Your task to perform on an android device: Search for Italian restaurants on Maps Image 0: 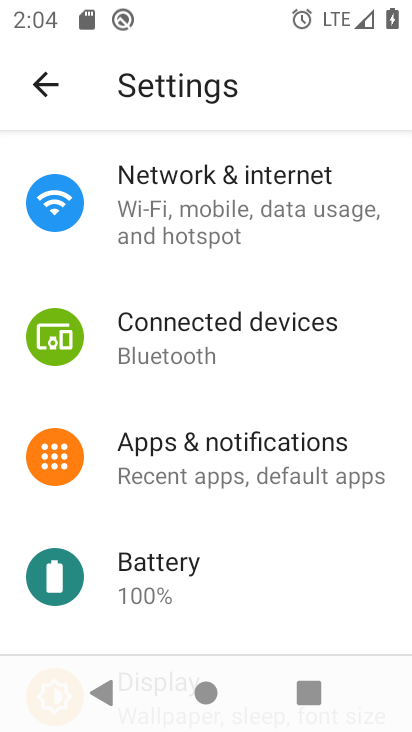
Step 0: press home button
Your task to perform on an android device: Search for Italian restaurants on Maps Image 1: 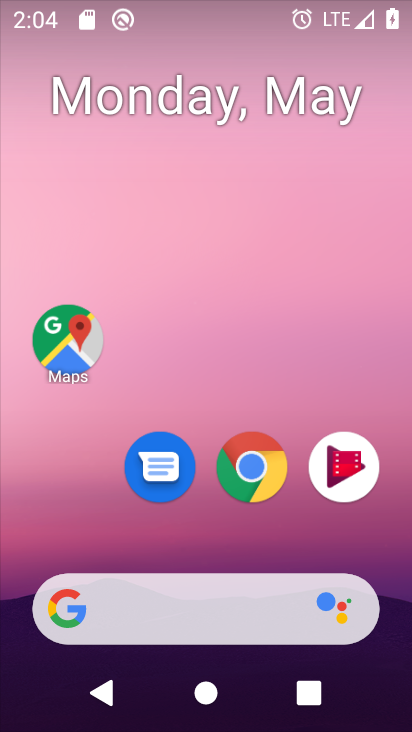
Step 1: drag from (234, 551) to (240, 234)
Your task to perform on an android device: Search for Italian restaurants on Maps Image 2: 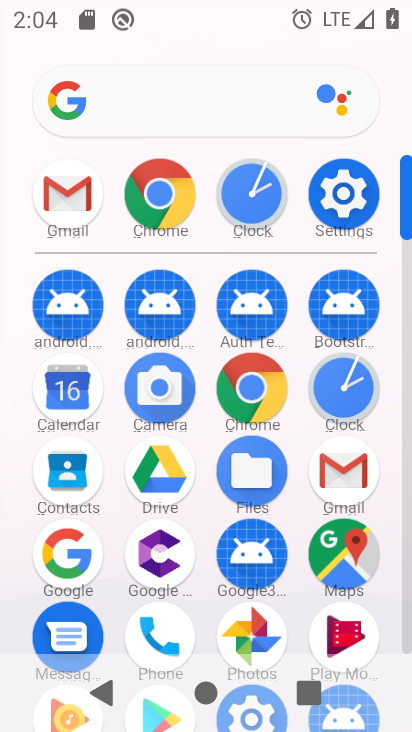
Step 2: click (367, 550)
Your task to perform on an android device: Search for Italian restaurants on Maps Image 3: 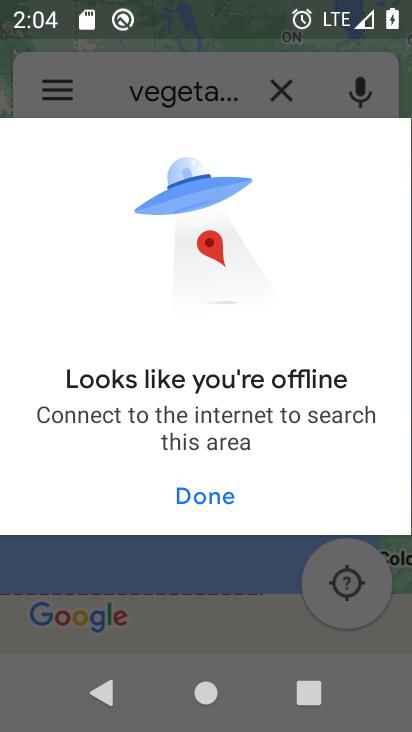
Step 3: click (275, 87)
Your task to perform on an android device: Search for Italian restaurants on Maps Image 4: 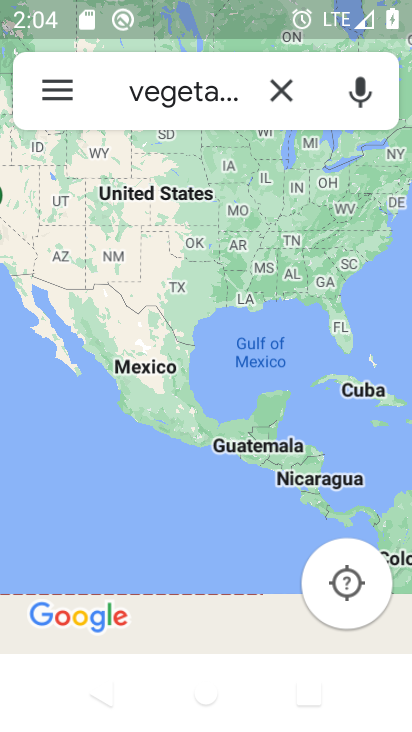
Step 4: click (276, 78)
Your task to perform on an android device: Search for Italian restaurants on Maps Image 5: 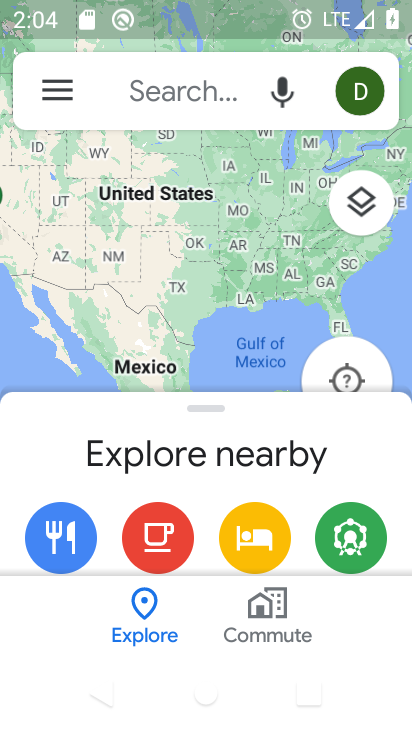
Step 5: click (192, 74)
Your task to perform on an android device: Search for Italian restaurants on Maps Image 6: 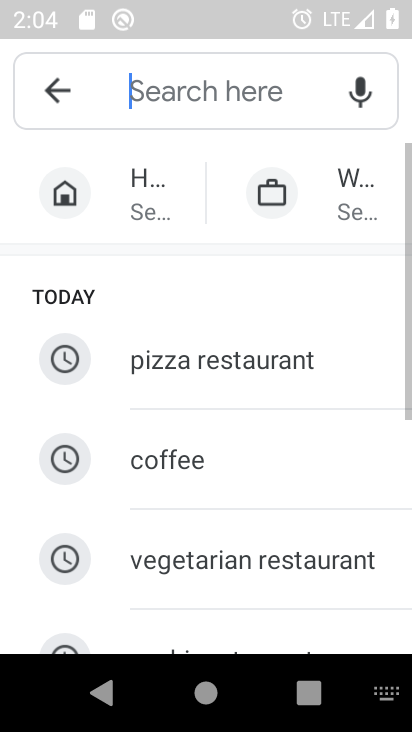
Step 6: drag from (216, 537) to (283, 276)
Your task to perform on an android device: Search for Italian restaurants on Maps Image 7: 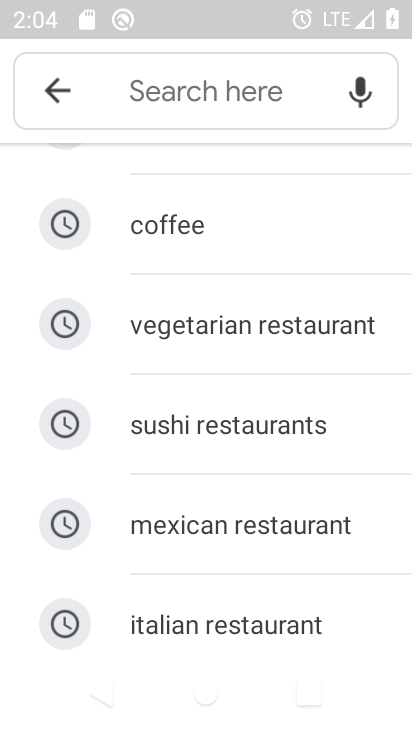
Step 7: drag from (218, 548) to (251, 313)
Your task to perform on an android device: Search for Italian restaurants on Maps Image 8: 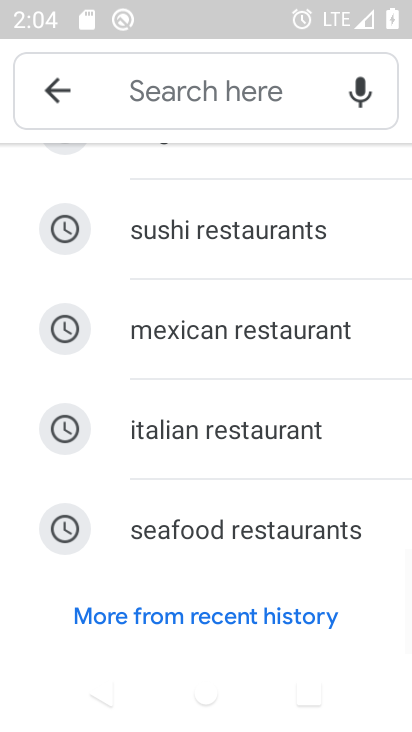
Step 8: click (194, 422)
Your task to perform on an android device: Search for Italian restaurants on Maps Image 9: 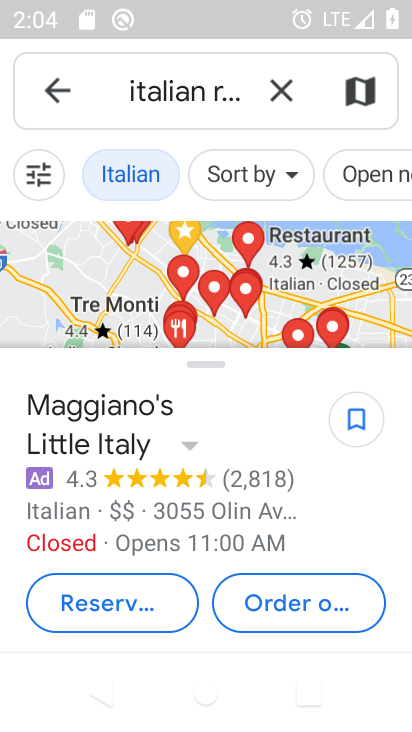
Step 9: task complete